Your task to perform on an android device: Open battery settings Image 0: 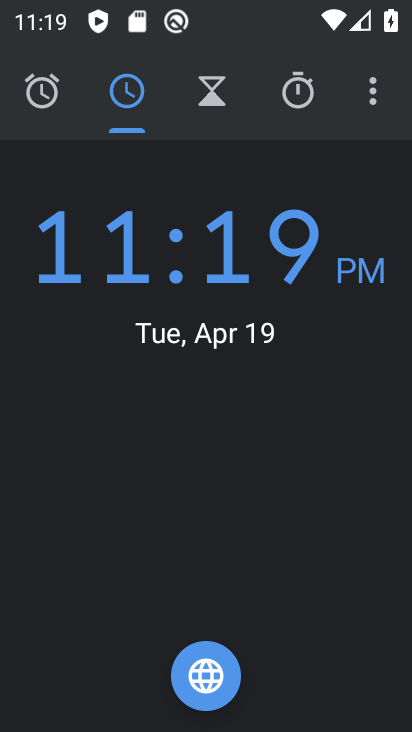
Step 0: press back button
Your task to perform on an android device: Open battery settings Image 1: 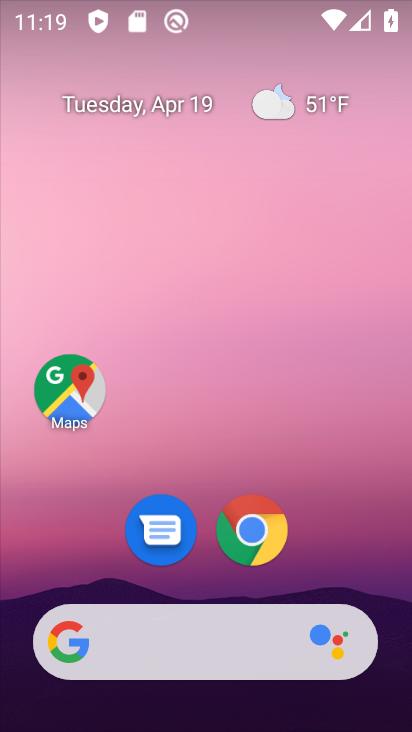
Step 1: drag from (125, 580) to (252, 56)
Your task to perform on an android device: Open battery settings Image 2: 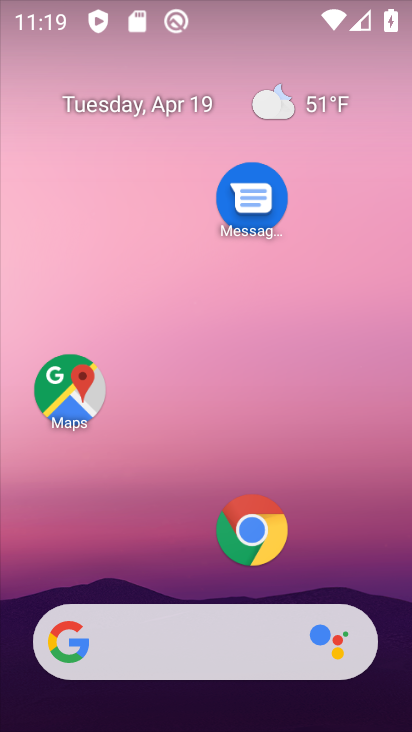
Step 2: drag from (154, 227) to (182, 0)
Your task to perform on an android device: Open battery settings Image 3: 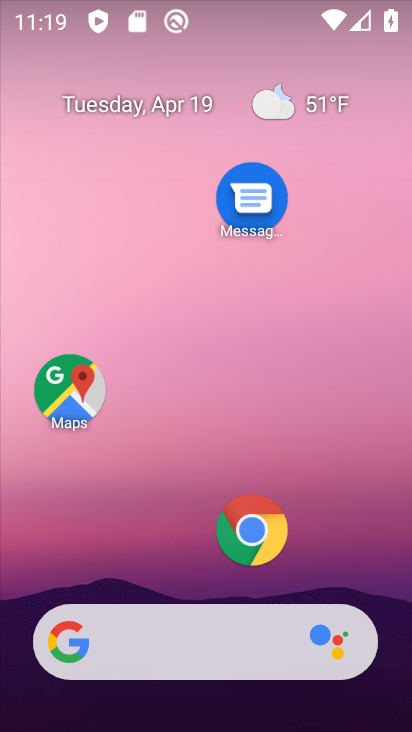
Step 3: drag from (232, 111) to (285, 6)
Your task to perform on an android device: Open battery settings Image 4: 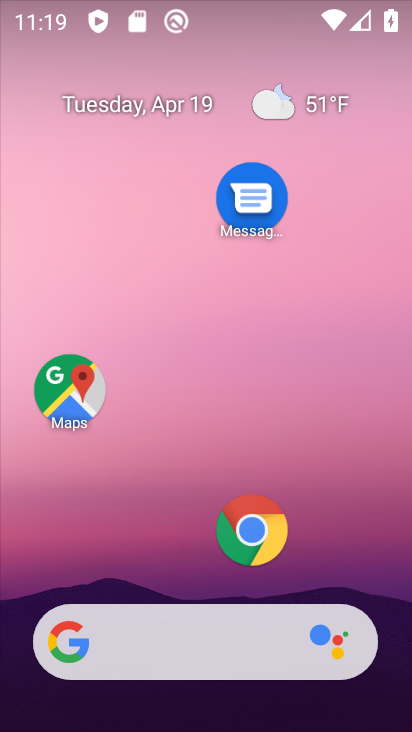
Step 4: drag from (190, 382) to (329, 16)
Your task to perform on an android device: Open battery settings Image 5: 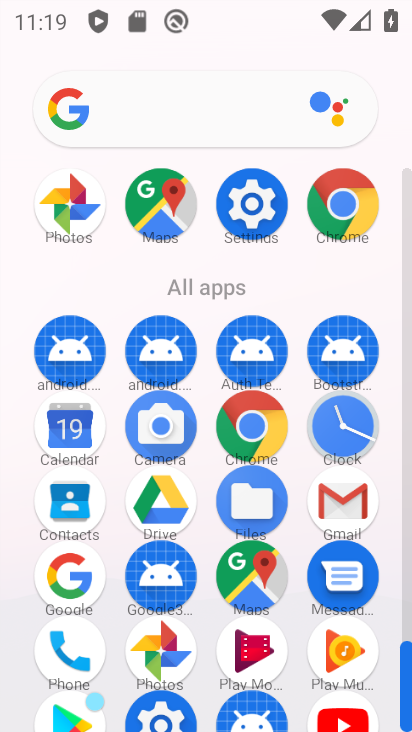
Step 5: click (252, 201)
Your task to perform on an android device: Open battery settings Image 6: 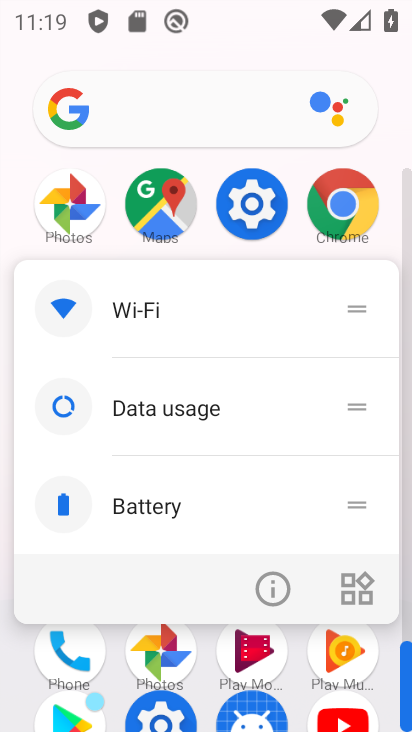
Step 6: click (253, 200)
Your task to perform on an android device: Open battery settings Image 7: 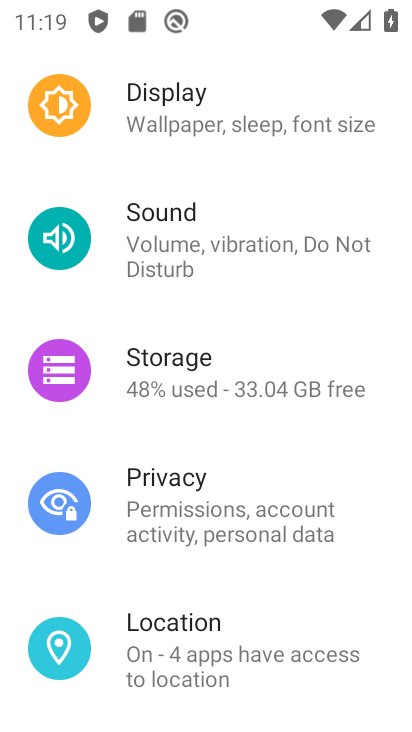
Step 7: drag from (264, 189) to (273, 639)
Your task to perform on an android device: Open battery settings Image 8: 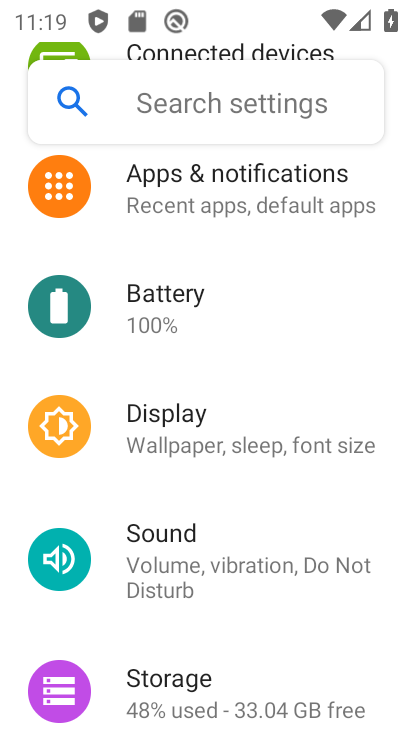
Step 8: click (251, 325)
Your task to perform on an android device: Open battery settings Image 9: 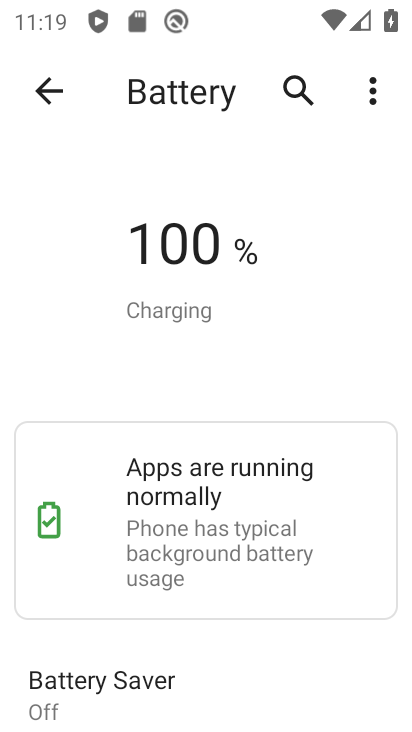
Step 9: task complete